Your task to perform on an android device: Open Wikipedia Image 0: 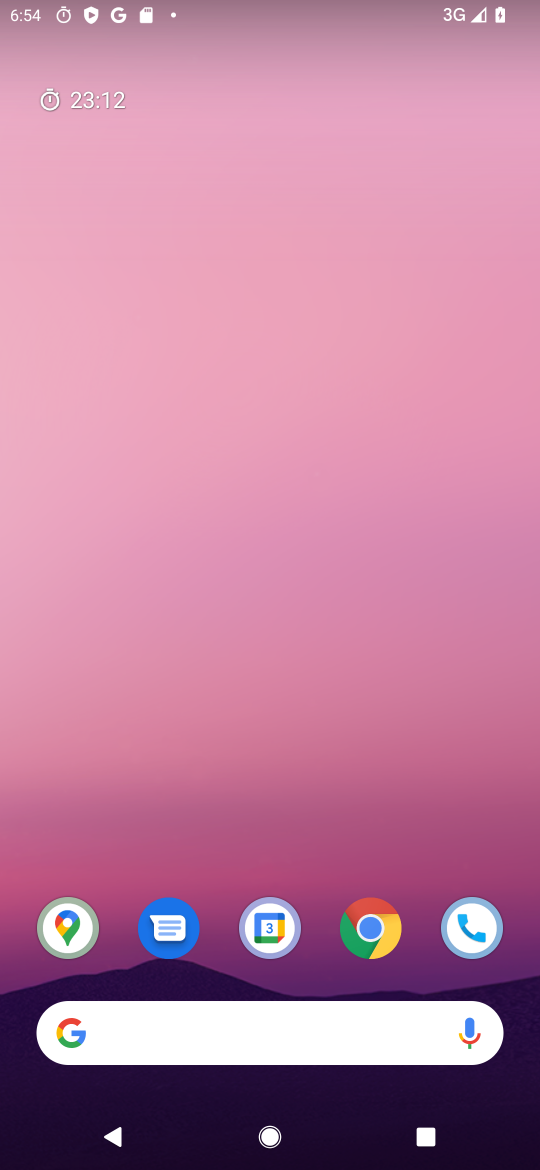
Step 0: drag from (319, 853) to (299, 67)
Your task to perform on an android device: Open Wikipedia Image 1: 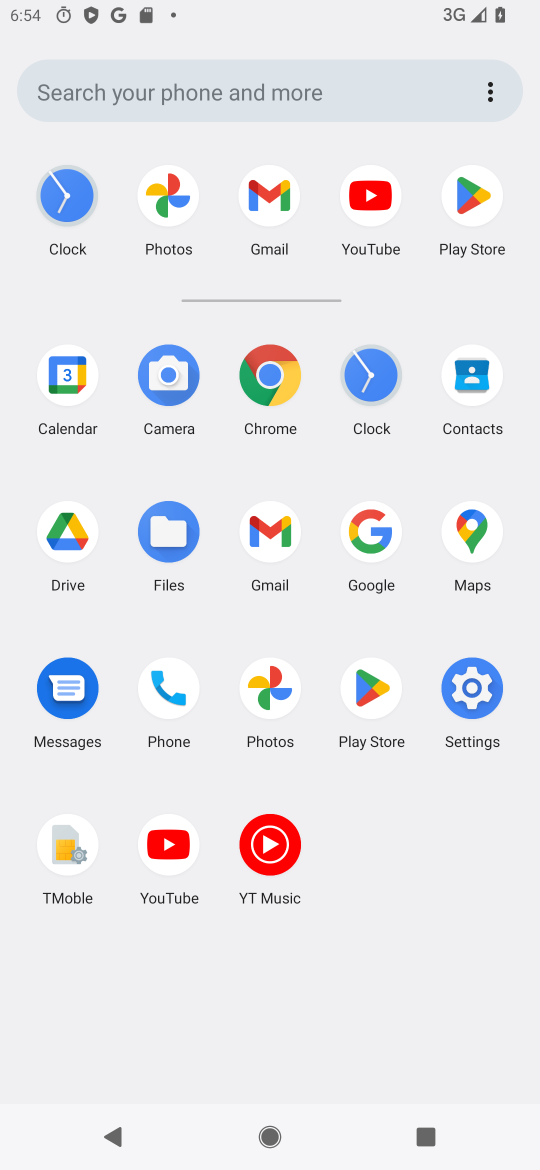
Step 1: click (287, 376)
Your task to perform on an android device: Open Wikipedia Image 2: 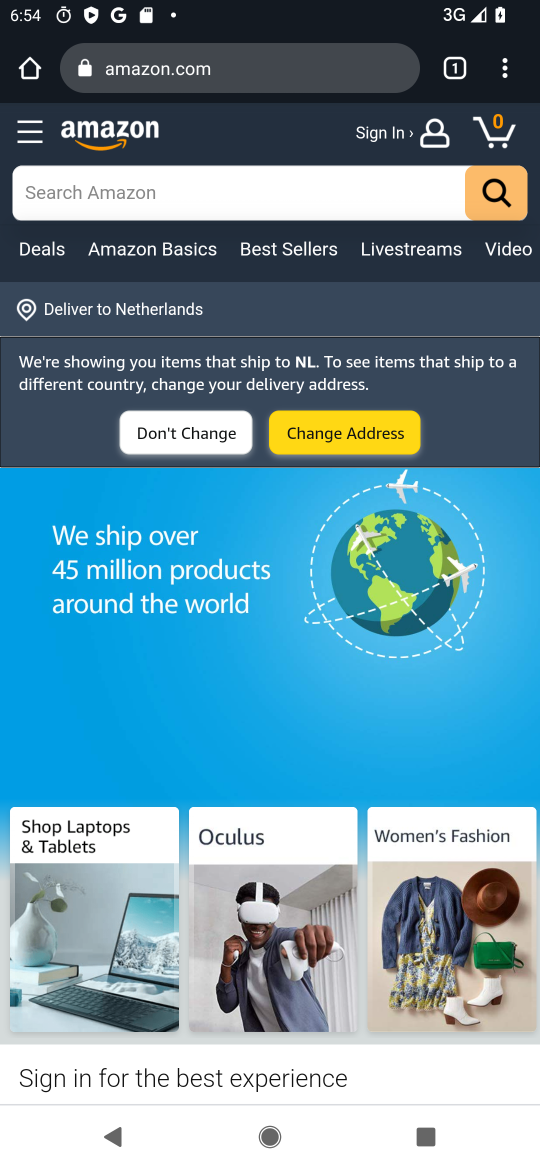
Step 2: click (270, 67)
Your task to perform on an android device: Open Wikipedia Image 3: 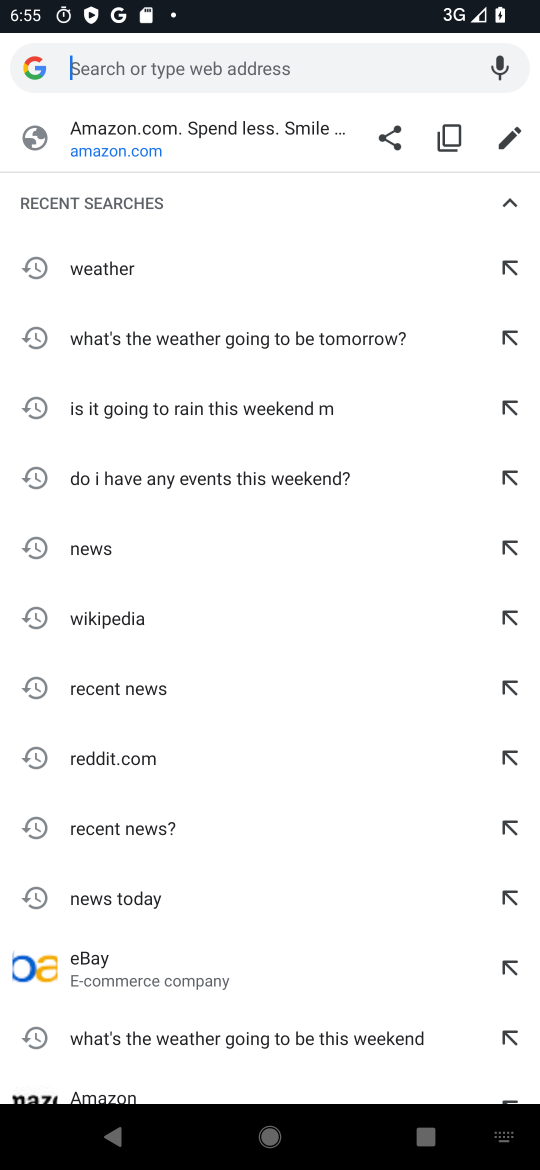
Step 3: type "wikipedia"
Your task to perform on an android device: Open Wikipedia Image 4: 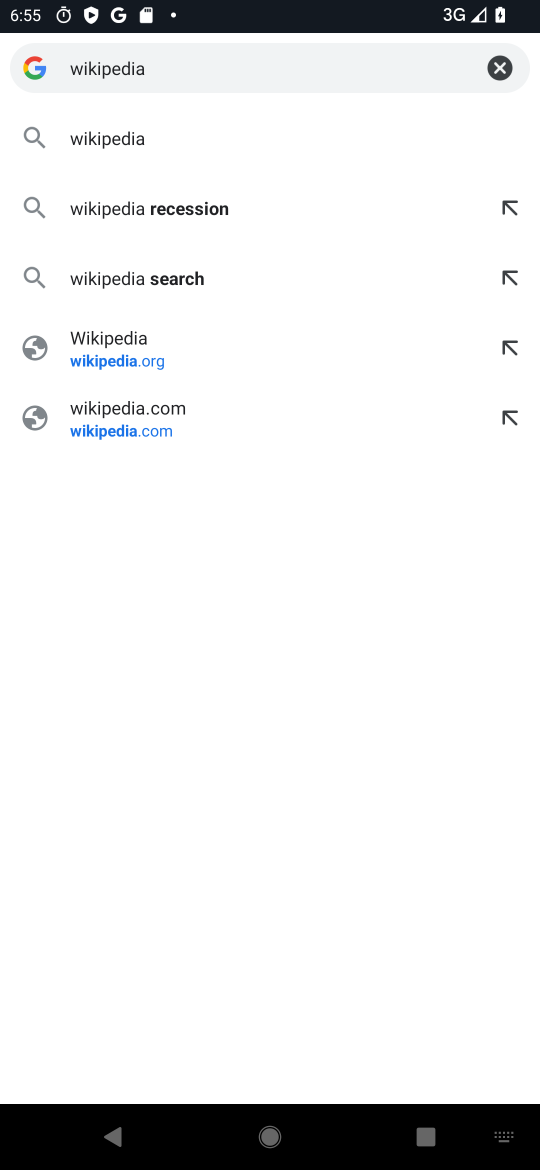
Step 4: click (144, 141)
Your task to perform on an android device: Open Wikipedia Image 5: 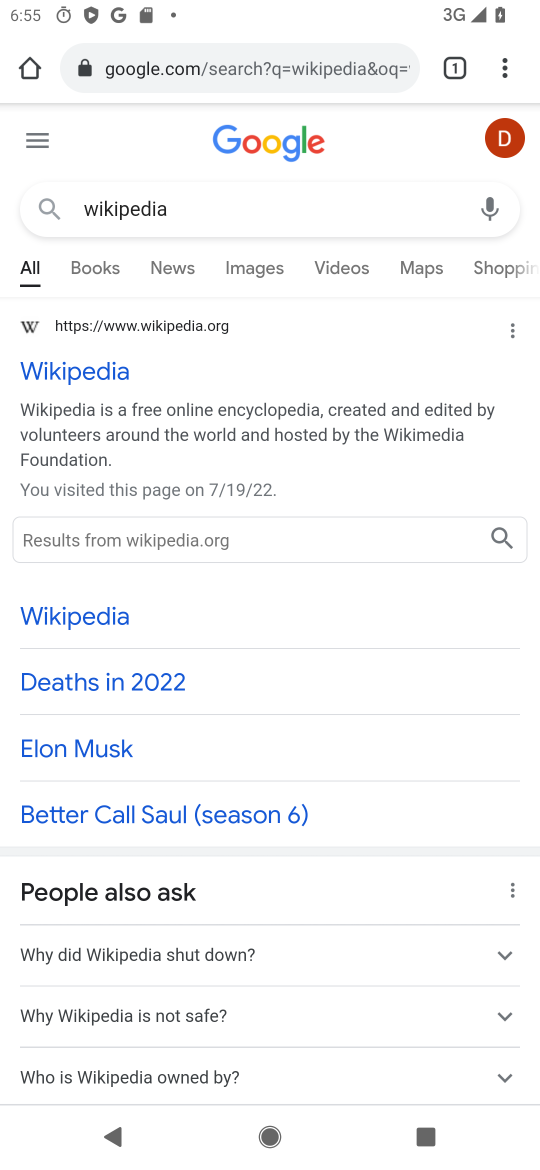
Step 5: task complete